Your task to perform on an android device: Toggle the flashlight Image 0: 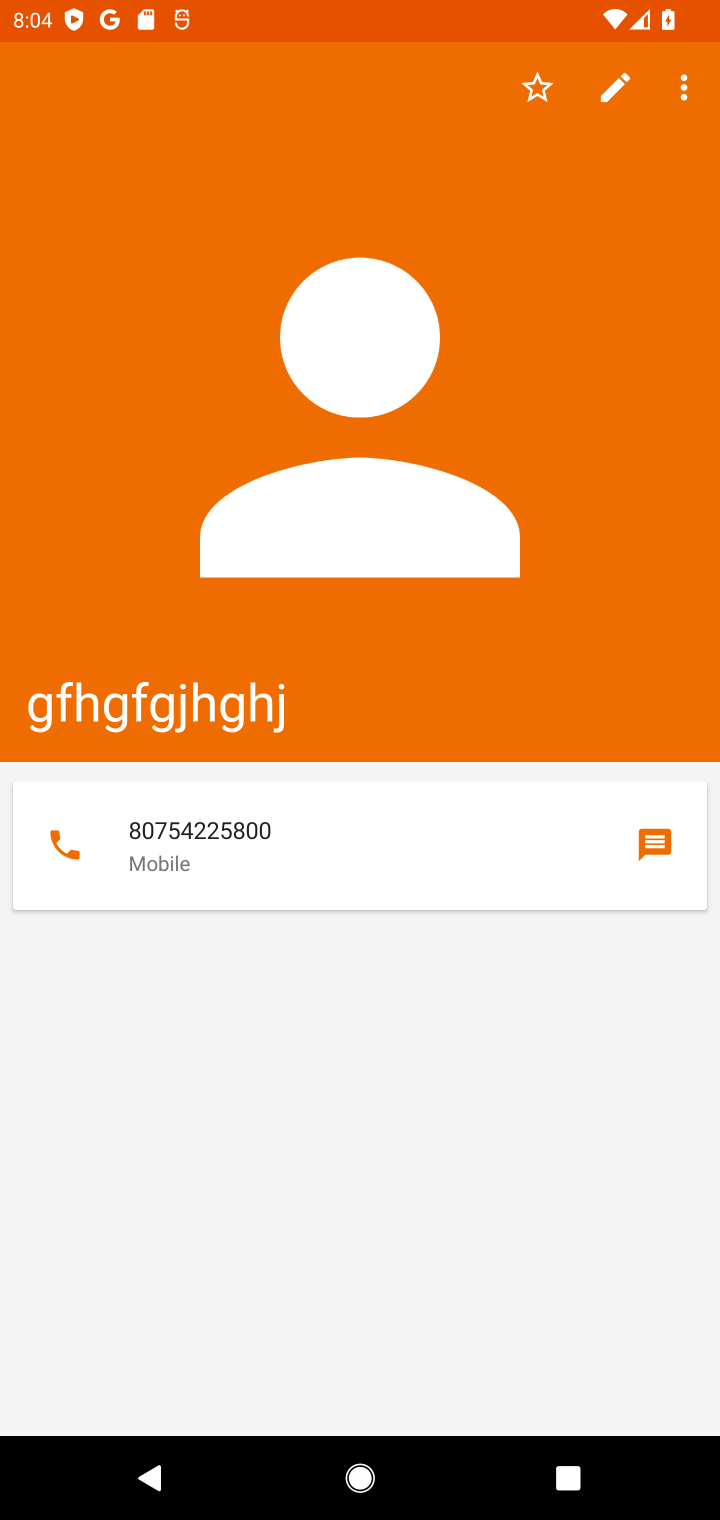
Step 0: press home button
Your task to perform on an android device: Toggle the flashlight Image 1: 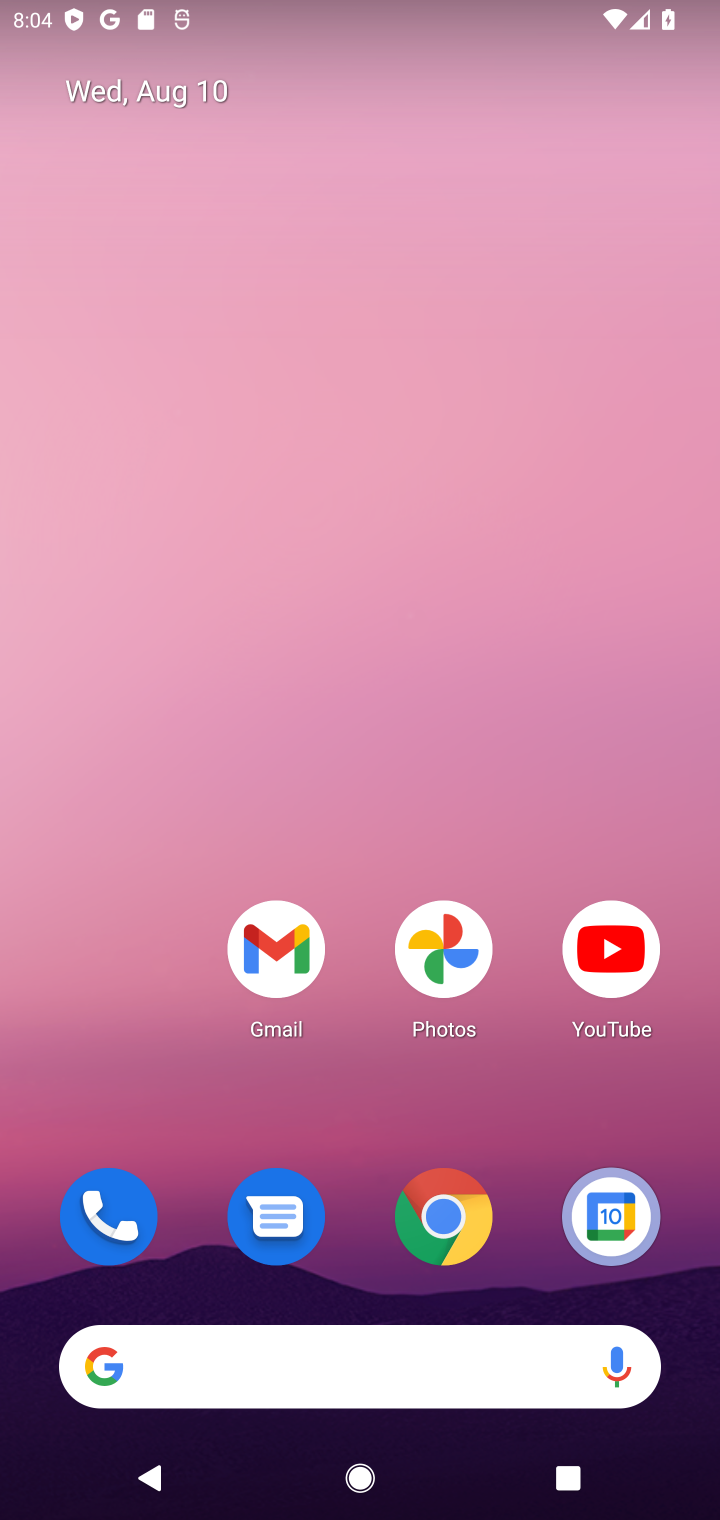
Step 1: drag from (345, 6) to (243, 897)
Your task to perform on an android device: Toggle the flashlight Image 2: 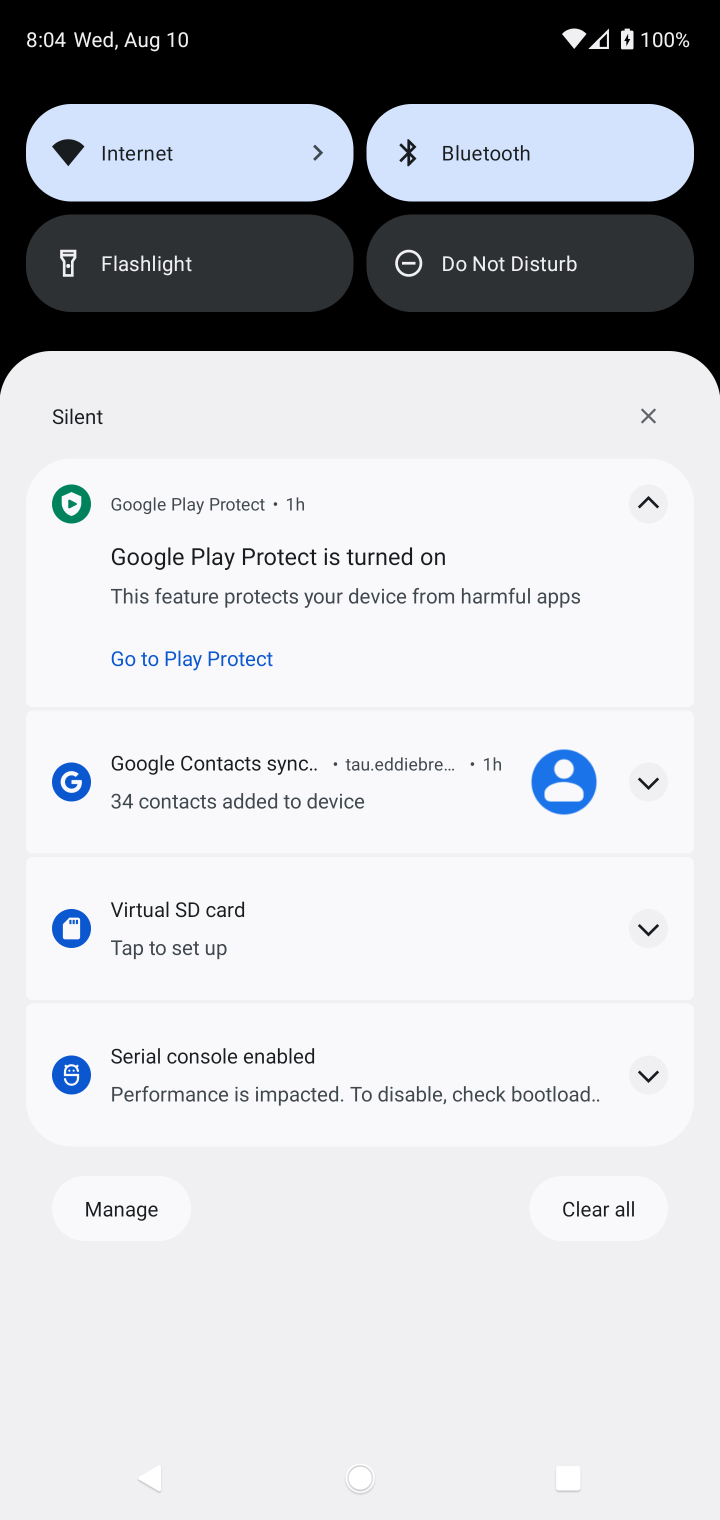
Step 2: click (247, 273)
Your task to perform on an android device: Toggle the flashlight Image 3: 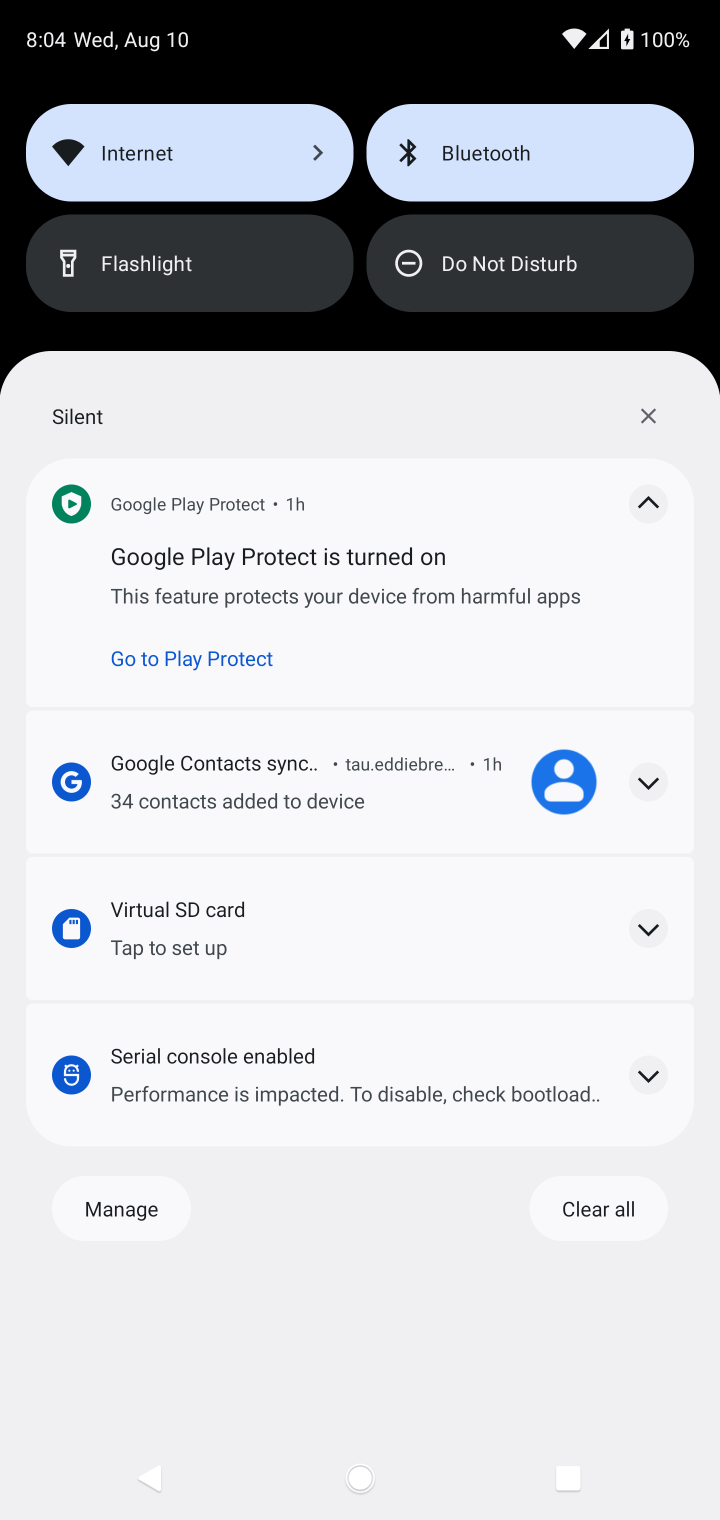
Step 3: drag from (258, 274) to (696, 211)
Your task to perform on an android device: Toggle the flashlight Image 4: 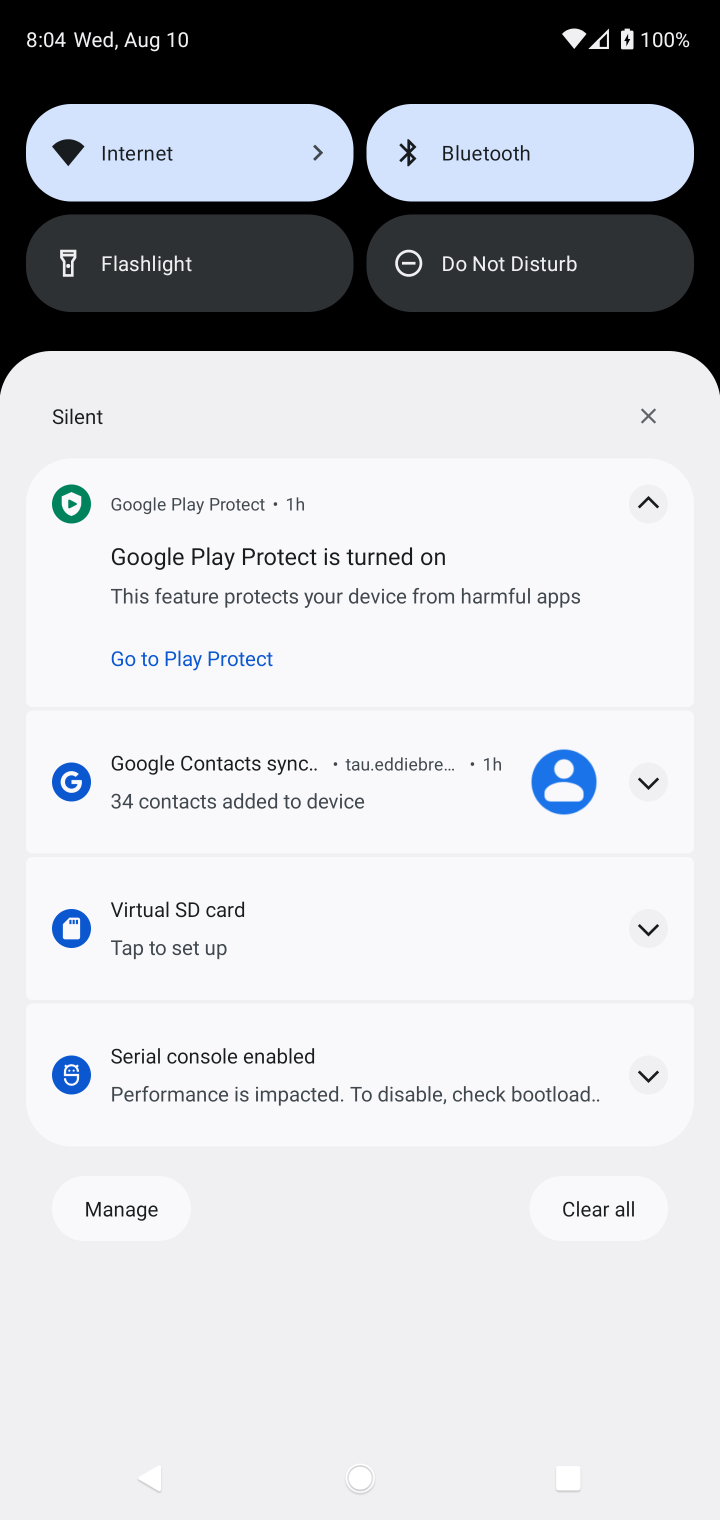
Step 4: click (196, 242)
Your task to perform on an android device: Toggle the flashlight Image 5: 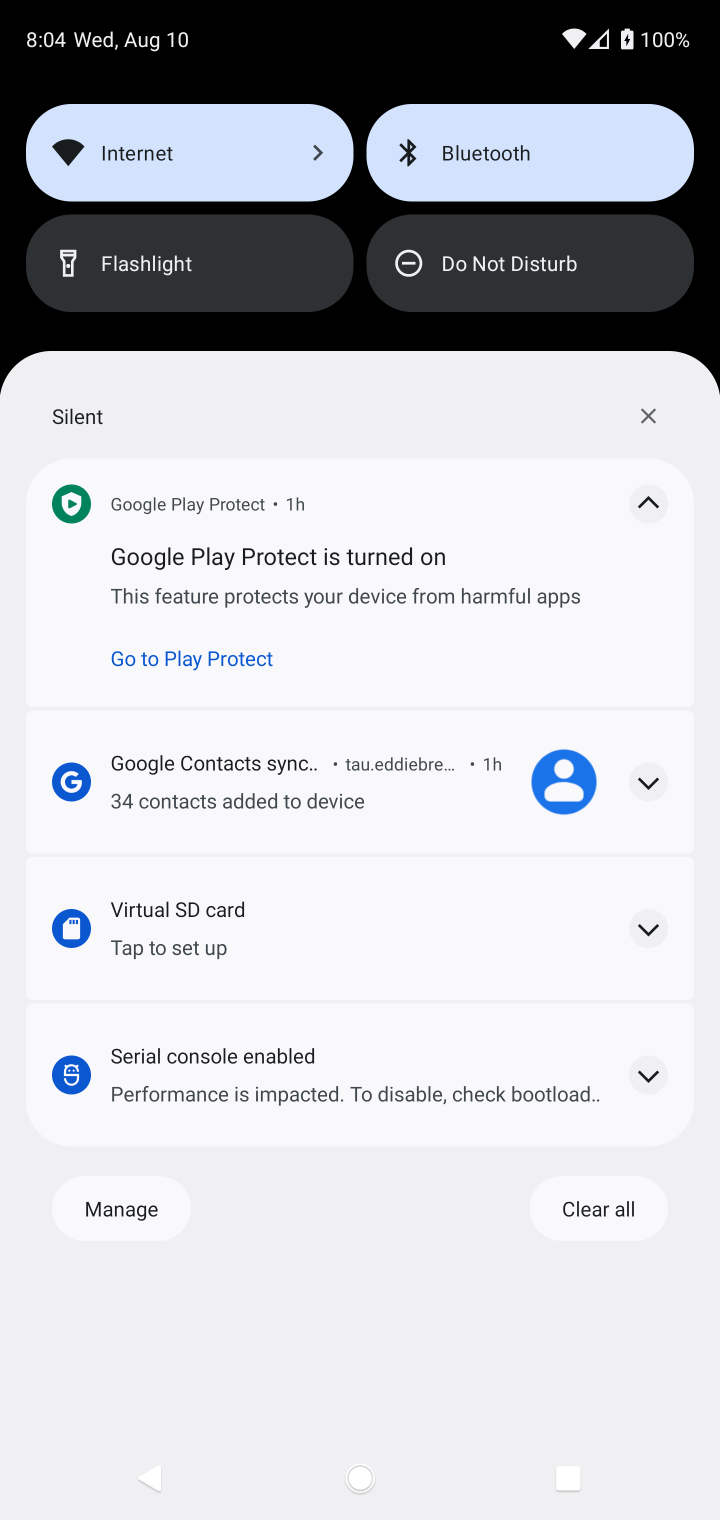
Step 5: click (206, 274)
Your task to perform on an android device: Toggle the flashlight Image 6: 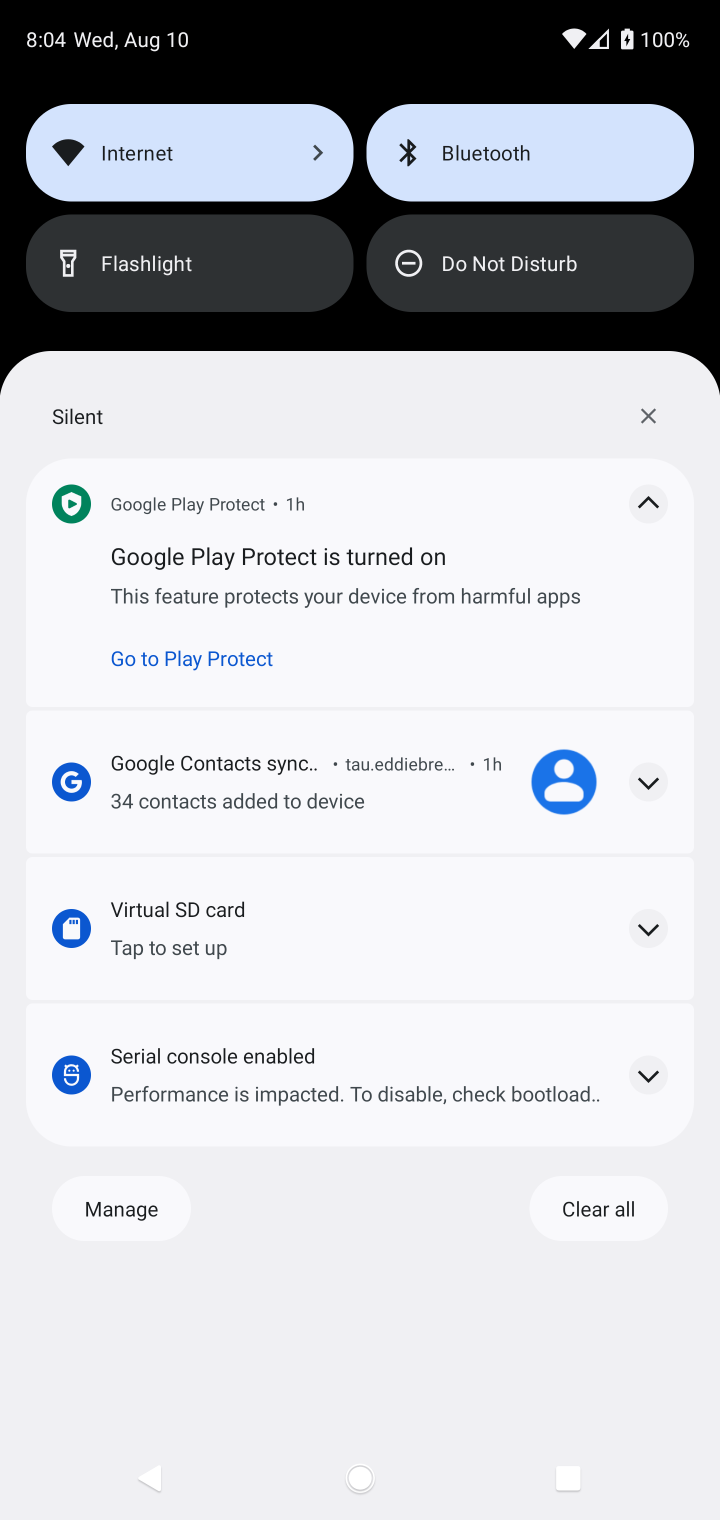
Step 6: task complete